Your task to perform on an android device: Show me productivity apps on the Play Store Image 0: 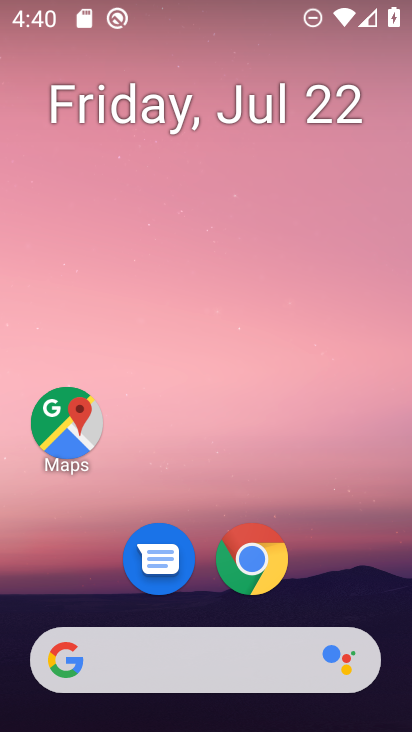
Step 0: drag from (96, 593) to (206, 88)
Your task to perform on an android device: Show me productivity apps on the Play Store Image 1: 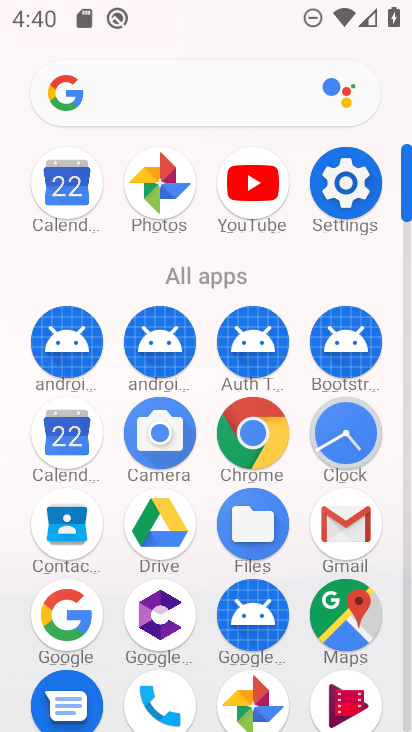
Step 1: drag from (186, 595) to (254, 163)
Your task to perform on an android device: Show me productivity apps on the Play Store Image 2: 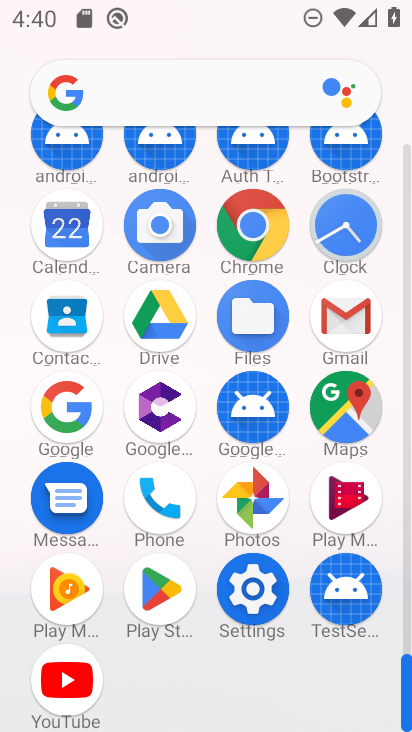
Step 2: click (169, 590)
Your task to perform on an android device: Show me productivity apps on the Play Store Image 3: 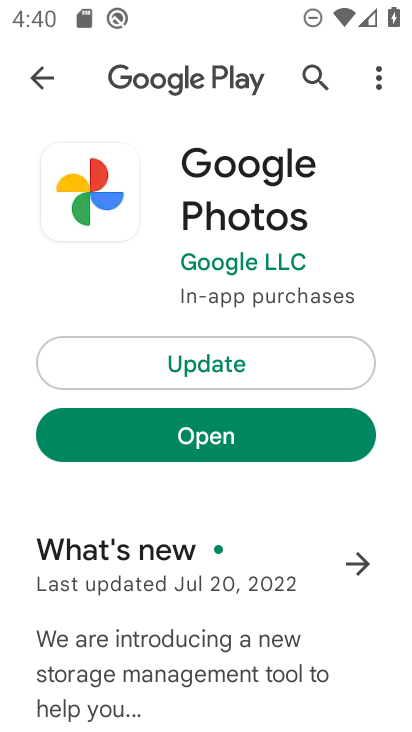
Step 3: click (58, 75)
Your task to perform on an android device: Show me productivity apps on the Play Store Image 4: 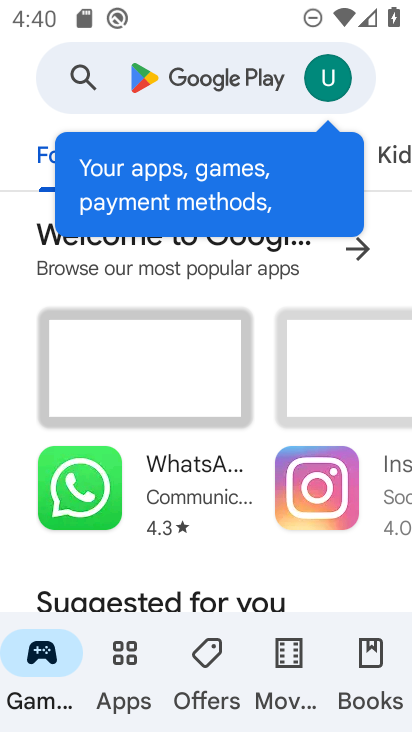
Step 4: click (124, 657)
Your task to perform on an android device: Show me productivity apps on the Play Store Image 5: 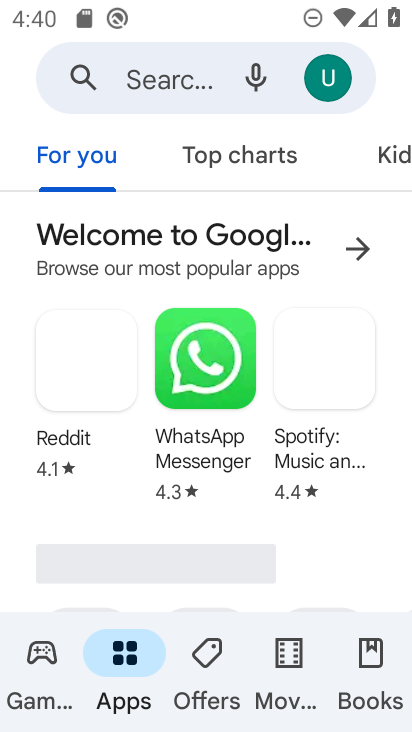
Step 5: drag from (208, 512) to (293, 115)
Your task to perform on an android device: Show me productivity apps on the Play Store Image 6: 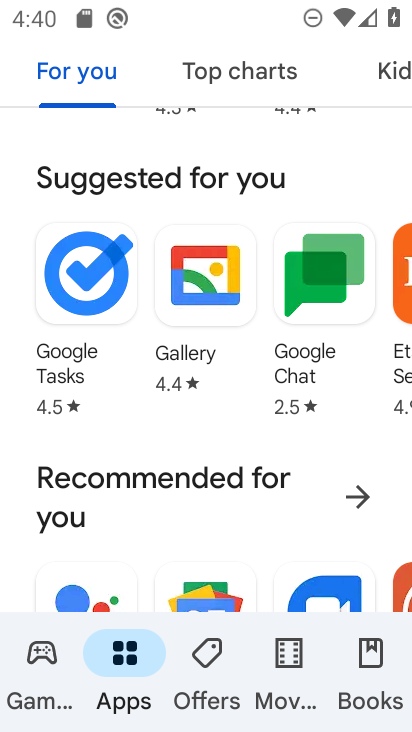
Step 6: drag from (236, 314) to (286, 15)
Your task to perform on an android device: Show me productivity apps on the Play Store Image 7: 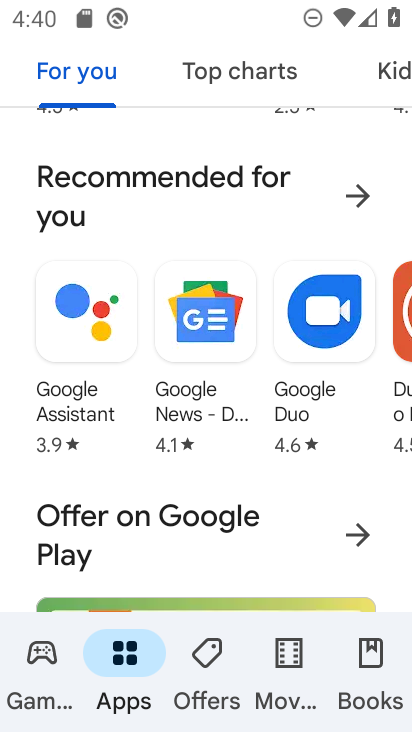
Step 7: drag from (185, 528) to (282, 6)
Your task to perform on an android device: Show me productivity apps on the Play Store Image 8: 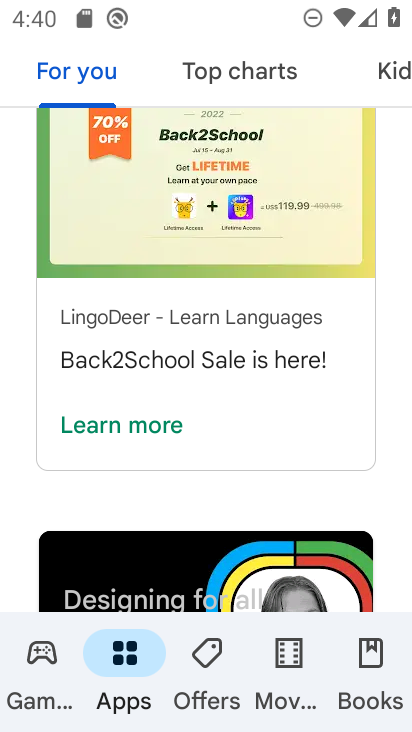
Step 8: drag from (163, 525) to (284, 17)
Your task to perform on an android device: Show me productivity apps on the Play Store Image 9: 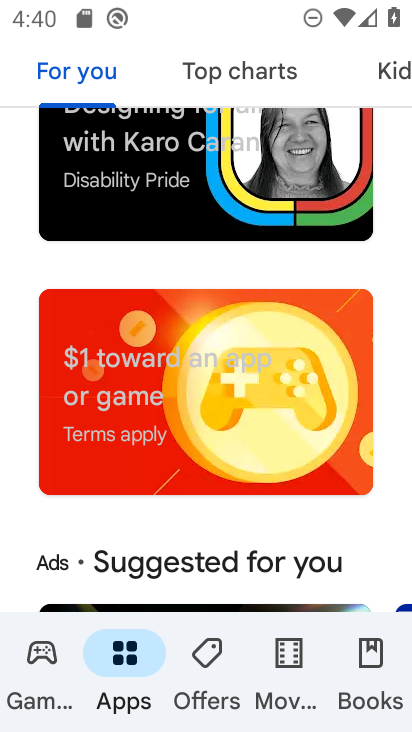
Step 9: drag from (177, 536) to (285, 45)
Your task to perform on an android device: Show me productivity apps on the Play Store Image 10: 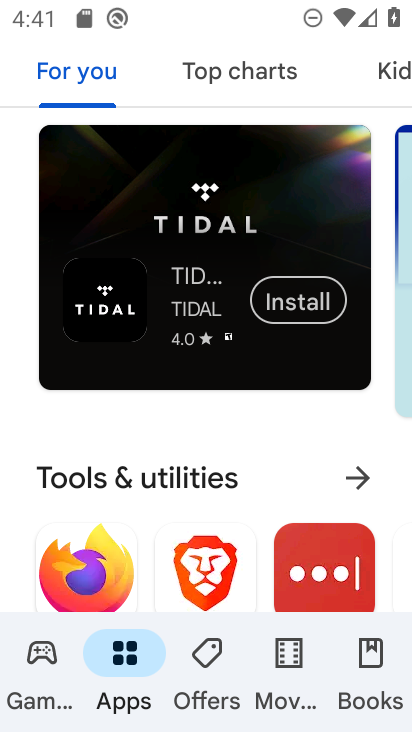
Step 10: drag from (171, 517) to (288, 40)
Your task to perform on an android device: Show me productivity apps on the Play Store Image 11: 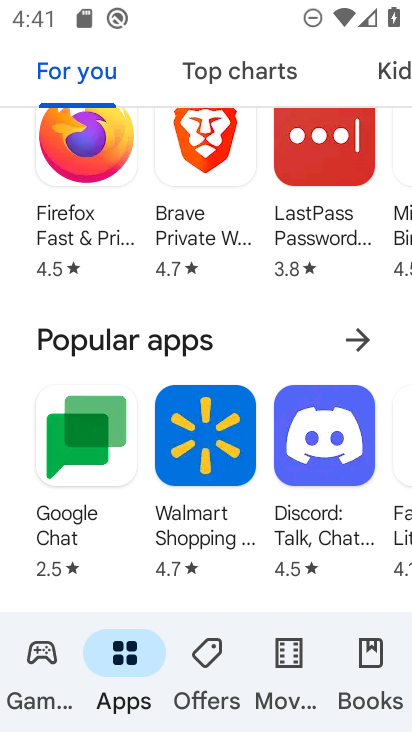
Step 11: drag from (197, 539) to (285, 61)
Your task to perform on an android device: Show me productivity apps on the Play Store Image 12: 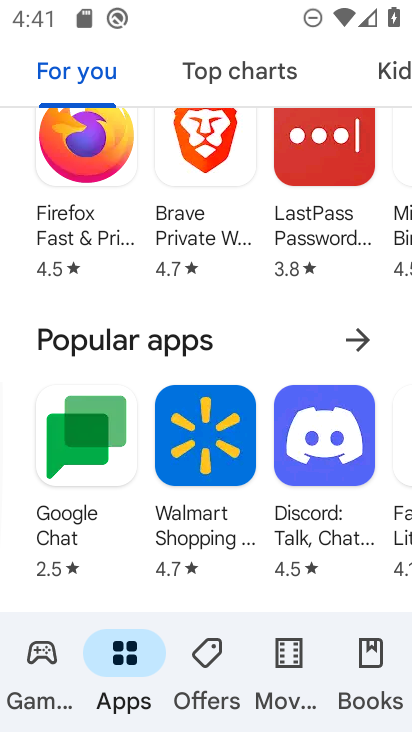
Step 12: drag from (169, 551) to (237, 152)
Your task to perform on an android device: Show me productivity apps on the Play Store Image 13: 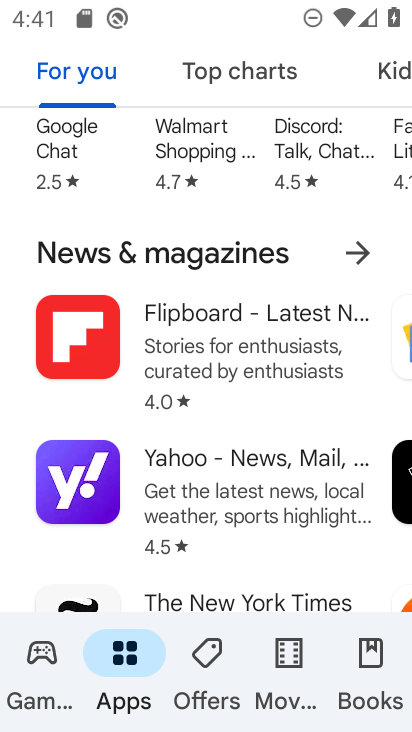
Step 13: drag from (141, 547) to (278, 15)
Your task to perform on an android device: Show me productivity apps on the Play Store Image 14: 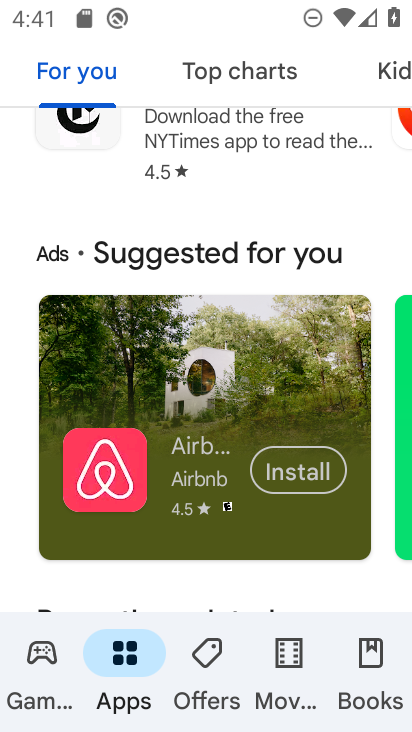
Step 14: drag from (149, 576) to (286, 68)
Your task to perform on an android device: Show me productivity apps on the Play Store Image 15: 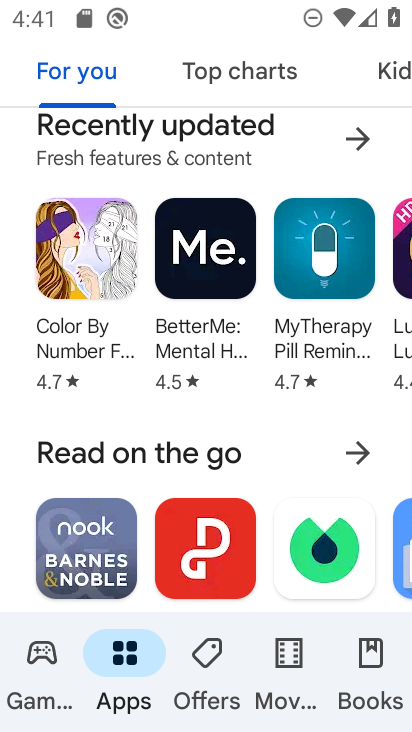
Step 15: drag from (201, 544) to (327, 29)
Your task to perform on an android device: Show me productivity apps on the Play Store Image 16: 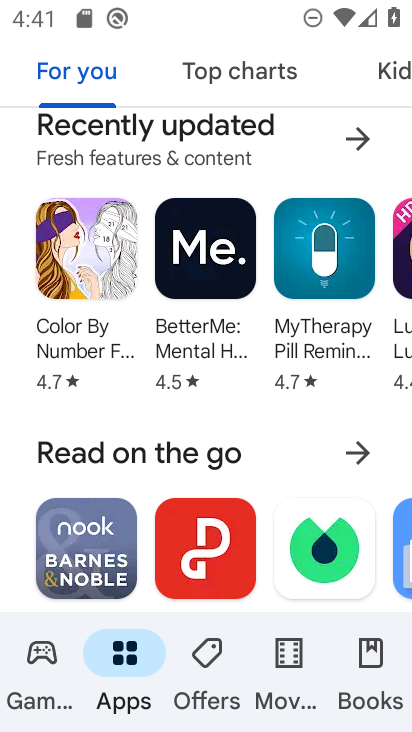
Step 16: drag from (241, 534) to (264, 26)
Your task to perform on an android device: Show me productivity apps on the Play Store Image 17: 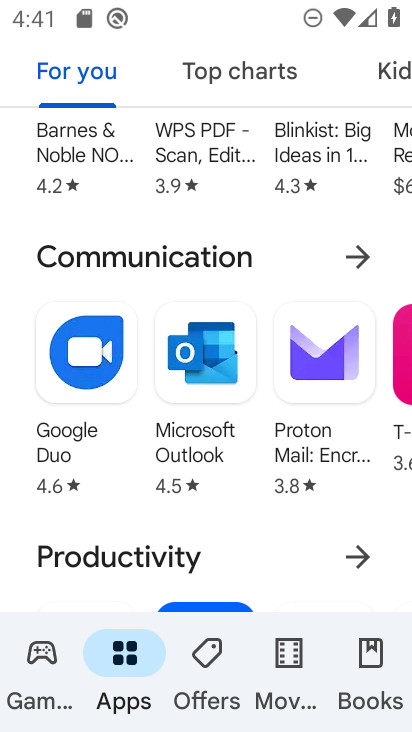
Step 17: drag from (232, 506) to (243, 341)
Your task to perform on an android device: Show me productivity apps on the Play Store Image 18: 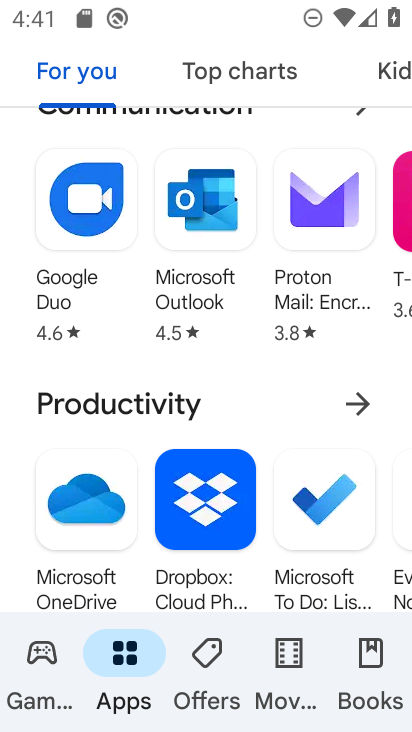
Step 18: click (380, 400)
Your task to perform on an android device: Show me productivity apps on the Play Store Image 19: 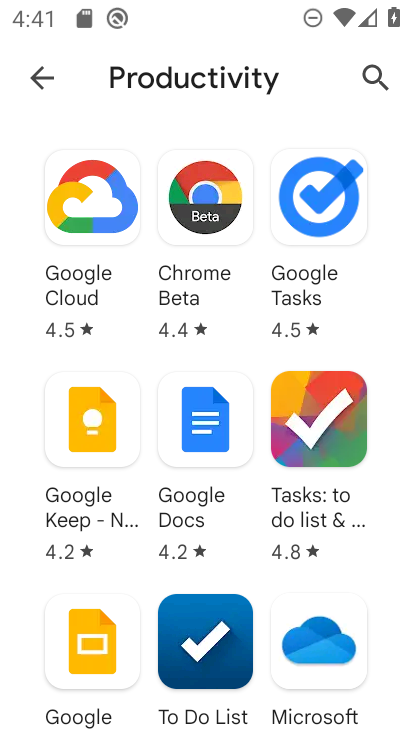
Step 19: task complete